Your task to perform on an android device: add a label to a message in the gmail app Image 0: 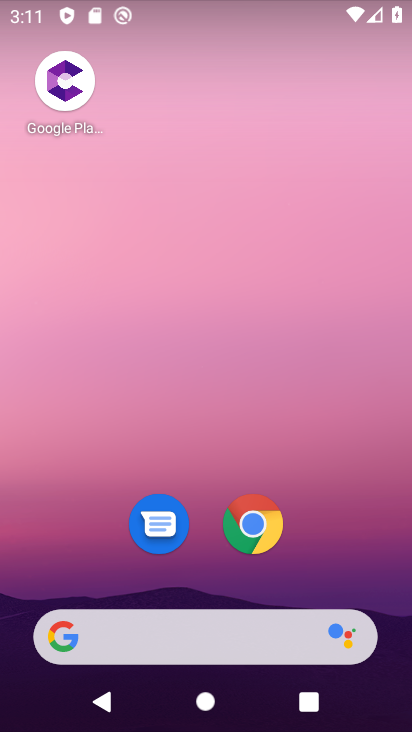
Step 0: drag from (344, 541) to (315, 23)
Your task to perform on an android device: add a label to a message in the gmail app Image 1: 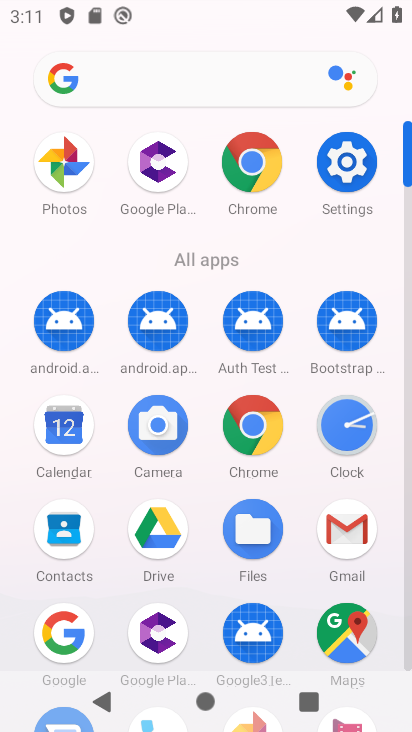
Step 1: click (345, 528)
Your task to perform on an android device: add a label to a message in the gmail app Image 2: 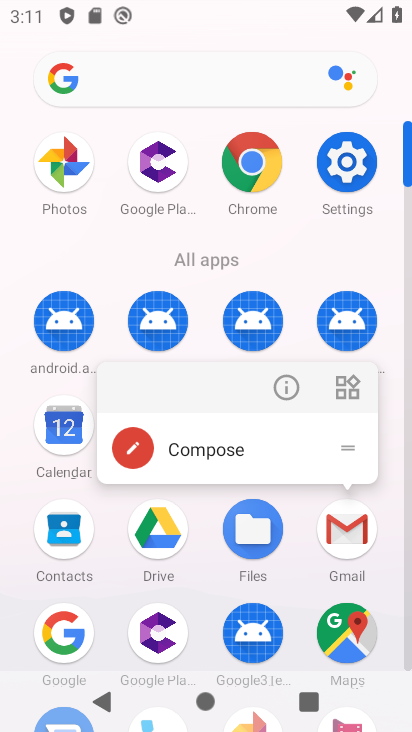
Step 2: click (345, 528)
Your task to perform on an android device: add a label to a message in the gmail app Image 3: 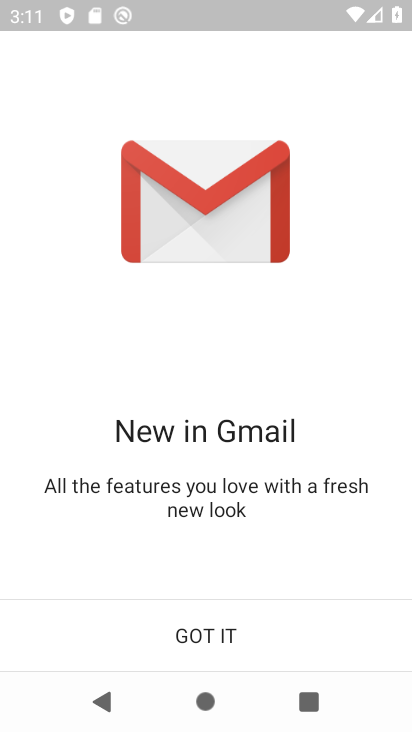
Step 3: click (238, 630)
Your task to perform on an android device: add a label to a message in the gmail app Image 4: 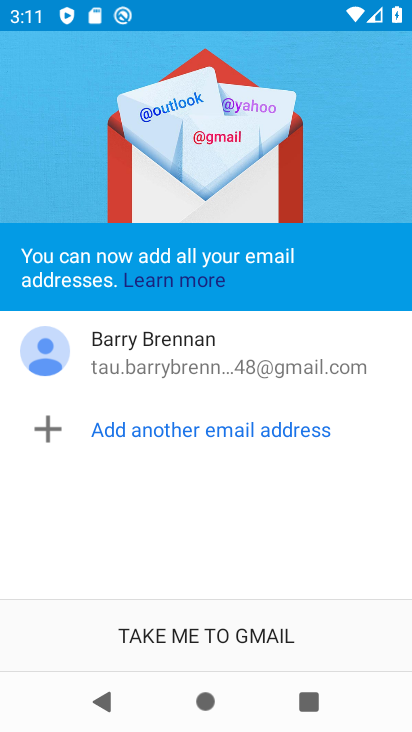
Step 4: click (239, 641)
Your task to perform on an android device: add a label to a message in the gmail app Image 5: 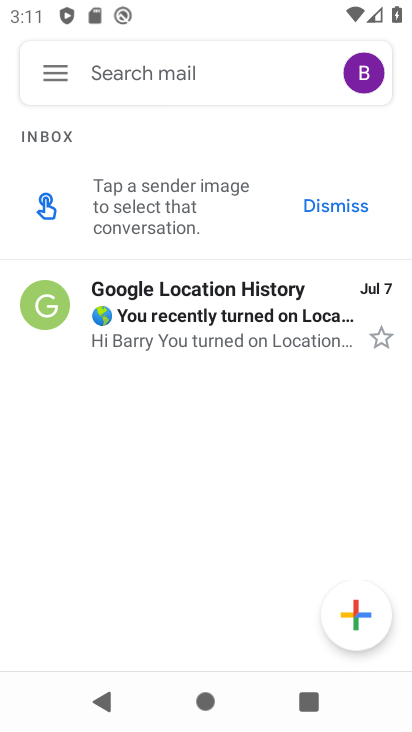
Step 5: click (212, 306)
Your task to perform on an android device: add a label to a message in the gmail app Image 6: 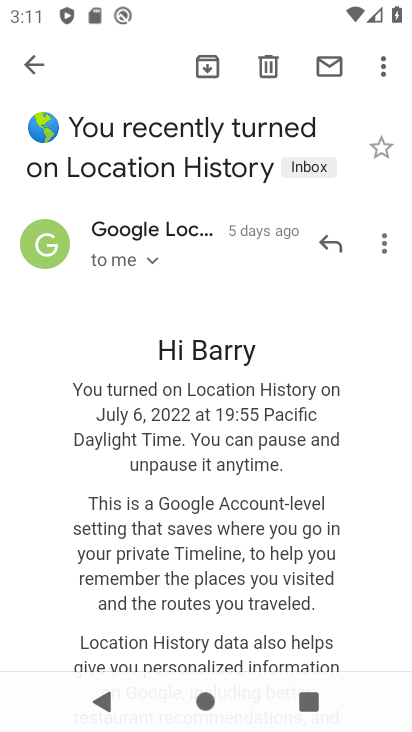
Step 6: click (380, 68)
Your task to perform on an android device: add a label to a message in the gmail app Image 7: 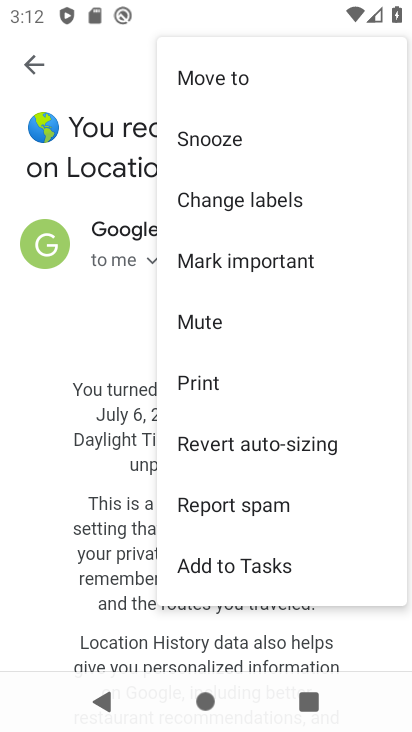
Step 7: click (283, 206)
Your task to perform on an android device: add a label to a message in the gmail app Image 8: 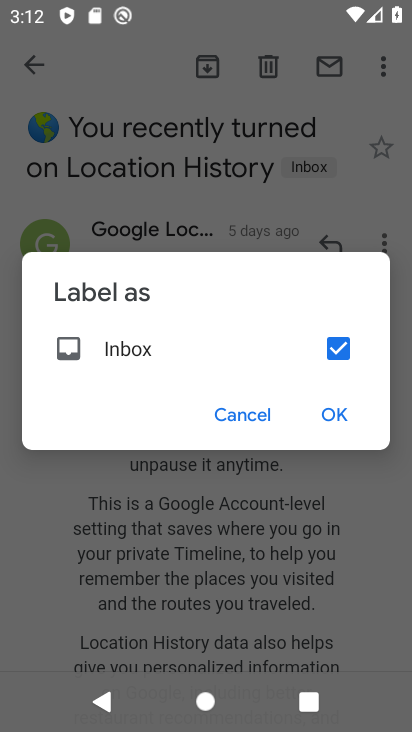
Step 8: click (331, 415)
Your task to perform on an android device: add a label to a message in the gmail app Image 9: 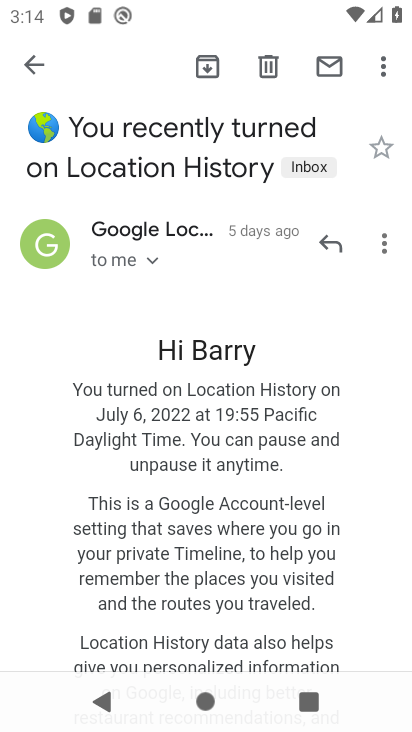
Step 9: task complete